Your task to perform on an android device: Open the web browser Image 0: 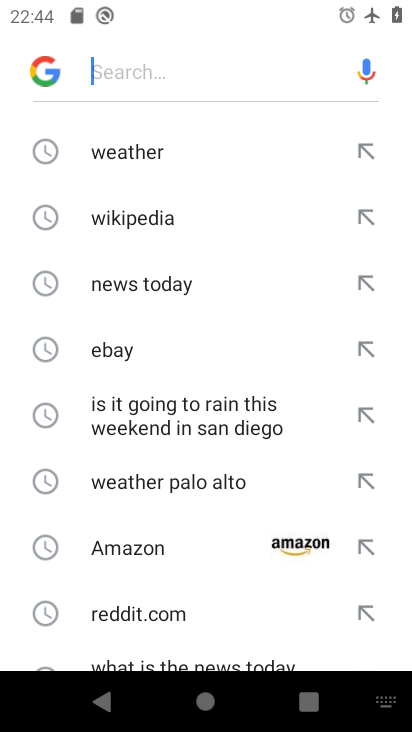
Step 0: press home button
Your task to perform on an android device: Open the web browser Image 1: 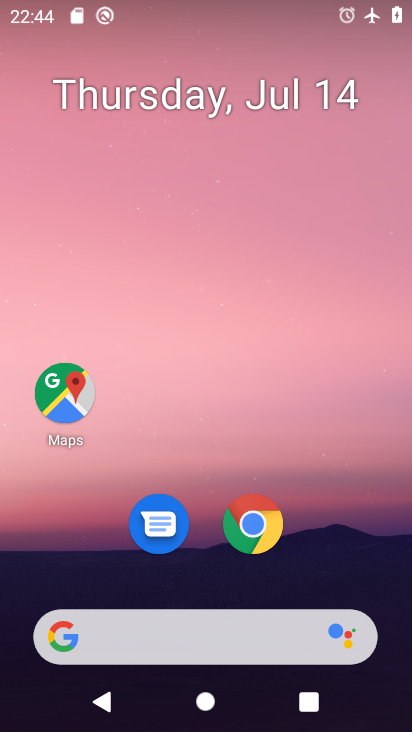
Step 1: click (203, 644)
Your task to perform on an android device: Open the web browser Image 2: 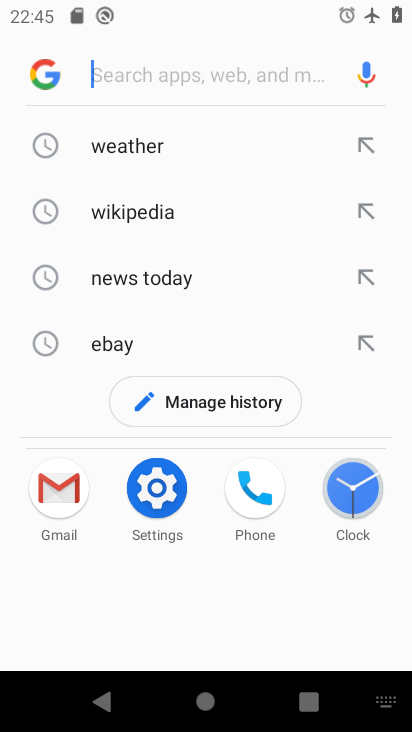
Step 2: task complete